Your task to perform on an android device: toggle airplane mode Image 0: 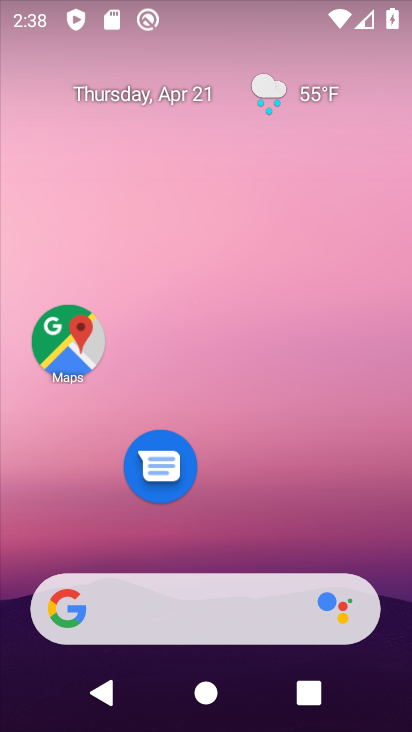
Step 0: drag from (251, 3) to (196, 388)
Your task to perform on an android device: toggle airplane mode Image 1: 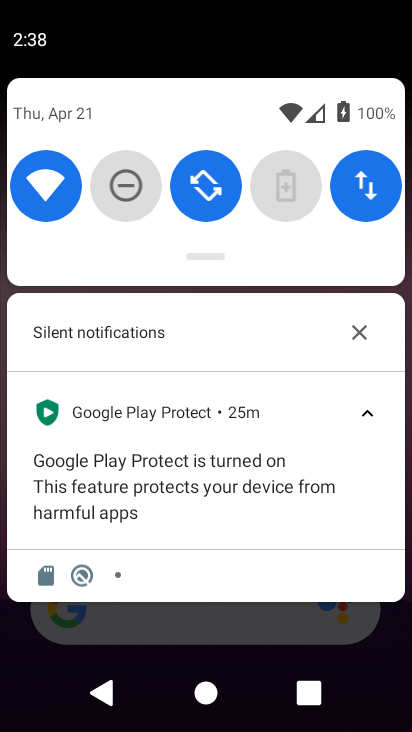
Step 1: drag from (230, 244) to (230, 486)
Your task to perform on an android device: toggle airplane mode Image 2: 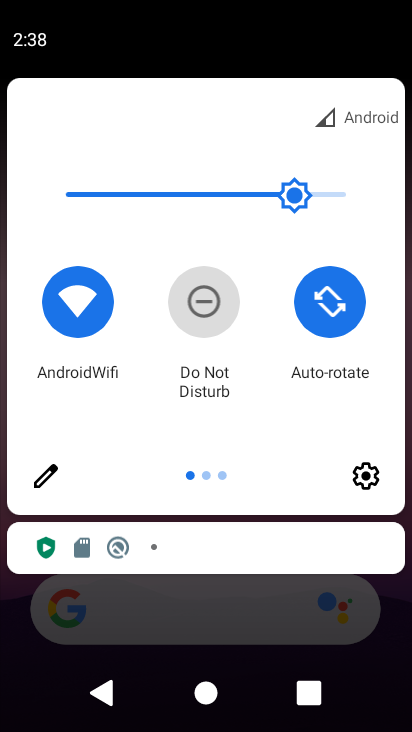
Step 2: drag from (328, 432) to (61, 418)
Your task to perform on an android device: toggle airplane mode Image 3: 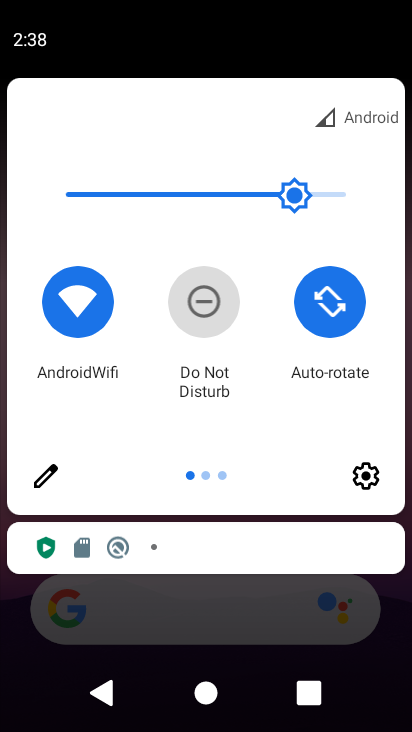
Step 3: drag from (321, 401) to (60, 405)
Your task to perform on an android device: toggle airplane mode Image 4: 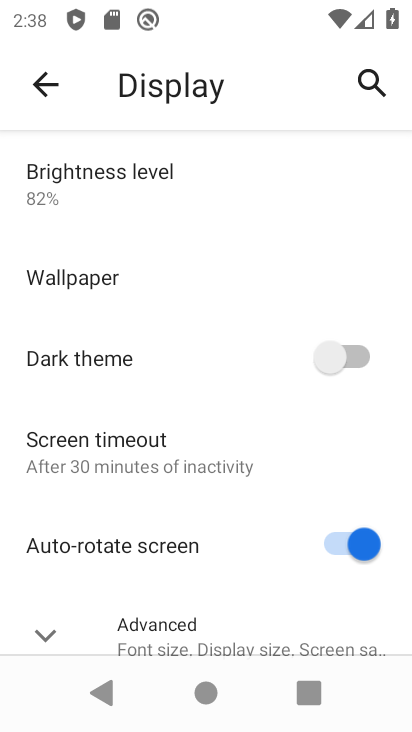
Step 4: press back button
Your task to perform on an android device: toggle airplane mode Image 5: 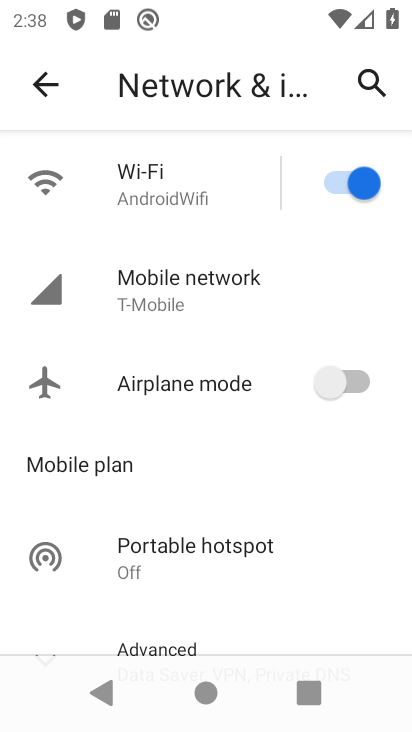
Step 5: click (364, 383)
Your task to perform on an android device: toggle airplane mode Image 6: 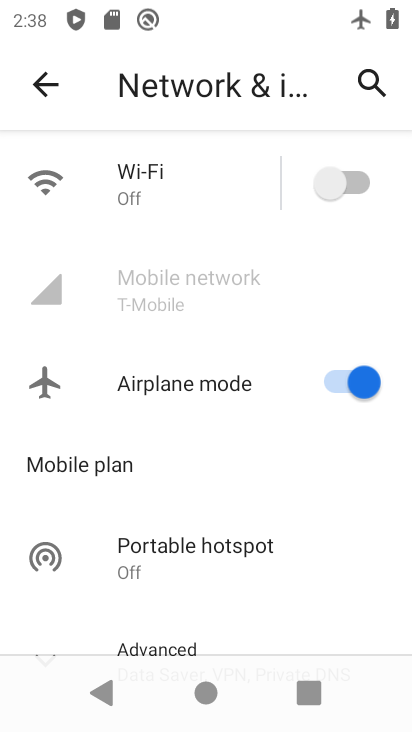
Step 6: task complete